Your task to perform on an android device: change the clock display to show seconds Image 0: 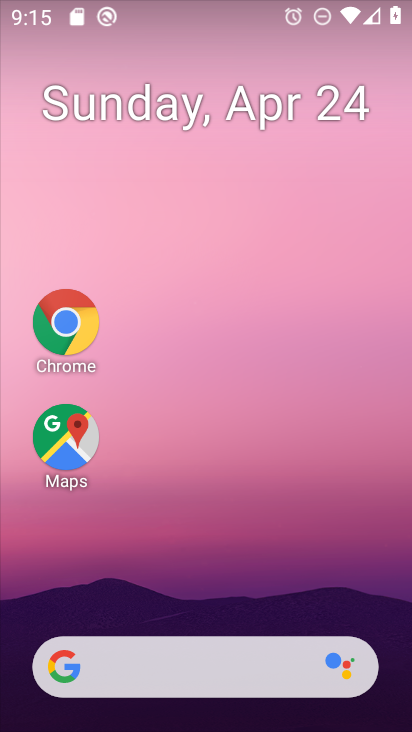
Step 0: drag from (192, 580) to (51, 30)
Your task to perform on an android device: change the clock display to show seconds Image 1: 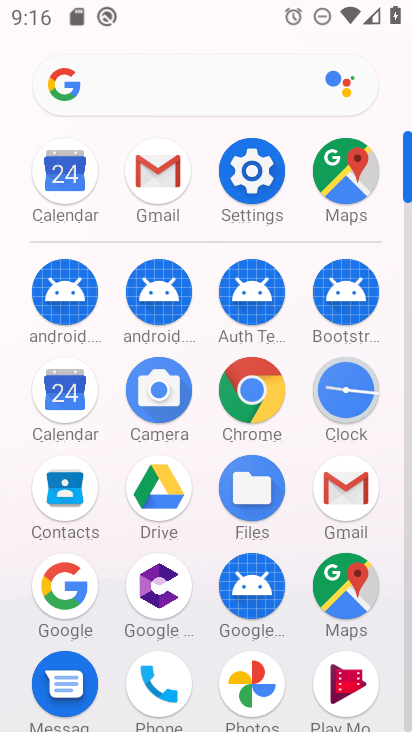
Step 1: click (344, 402)
Your task to perform on an android device: change the clock display to show seconds Image 2: 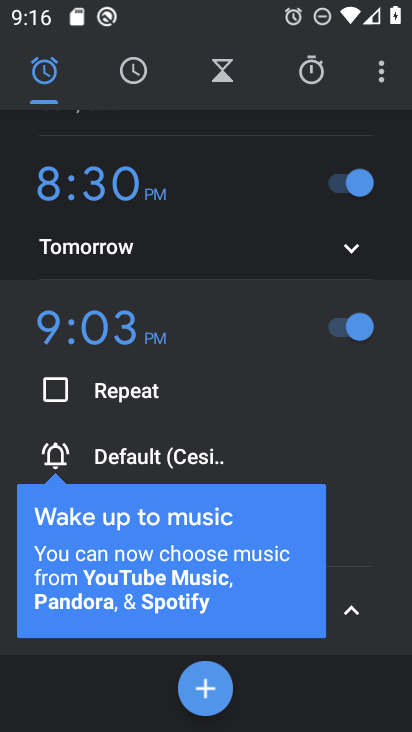
Step 2: click (380, 76)
Your task to perform on an android device: change the clock display to show seconds Image 3: 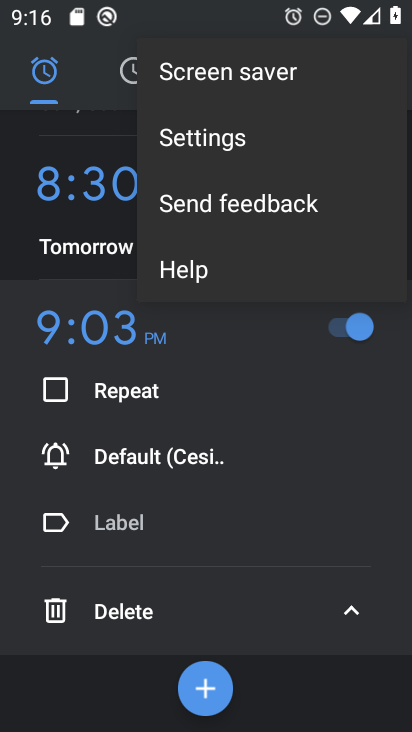
Step 3: click (230, 135)
Your task to perform on an android device: change the clock display to show seconds Image 4: 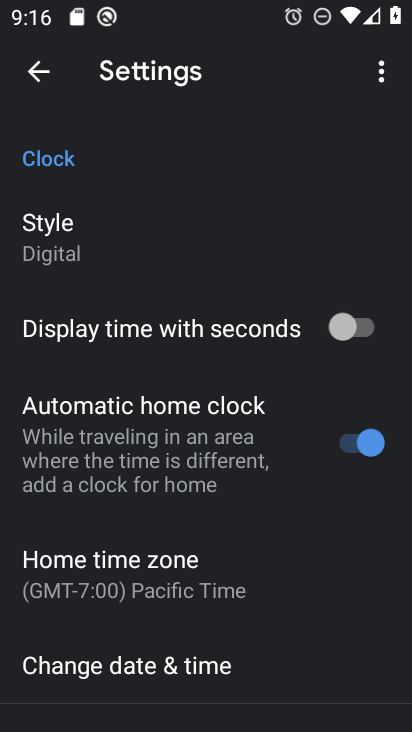
Step 4: click (355, 331)
Your task to perform on an android device: change the clock display to show seconds Image 5: 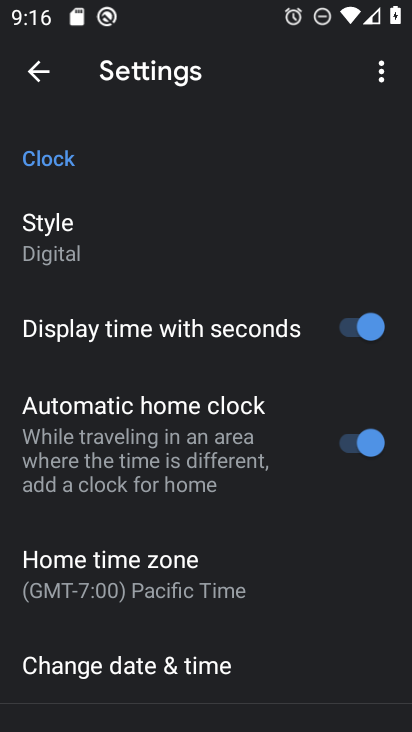
Step 5: task complete